Your task to perform on an android device: open wifi settings Image 0: 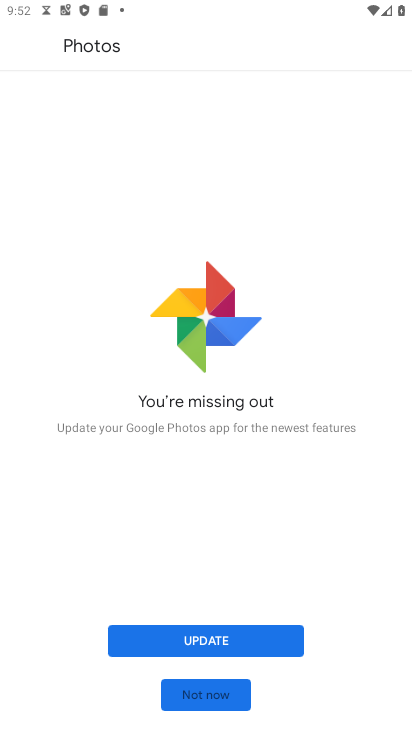
Step 0: press home button
Your task to perform on an android device: open wifi settings Image 1: 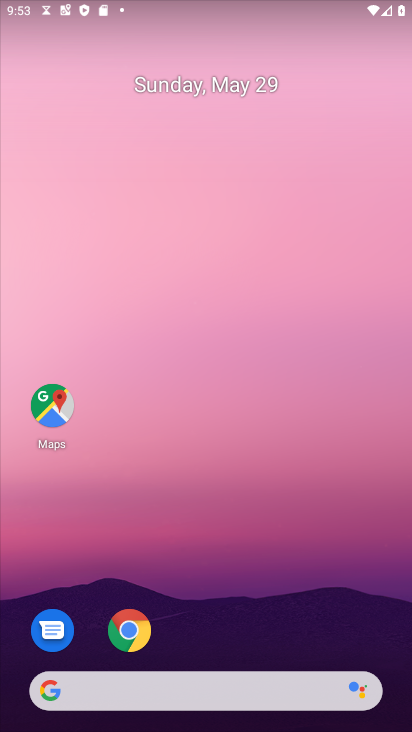
Step 1: drag from (282, 634) to (238, 46)
Your task to perform on an android device: open wifi settings Image 2: 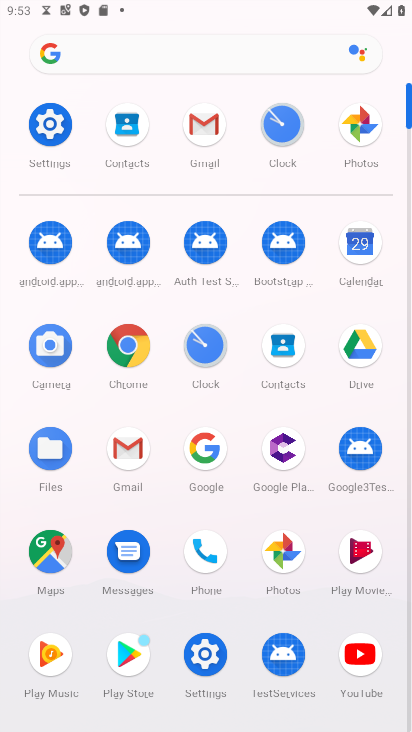
Step 2: click (44, 125)
Your task to perform on an android device: open wifi settings Image 3: 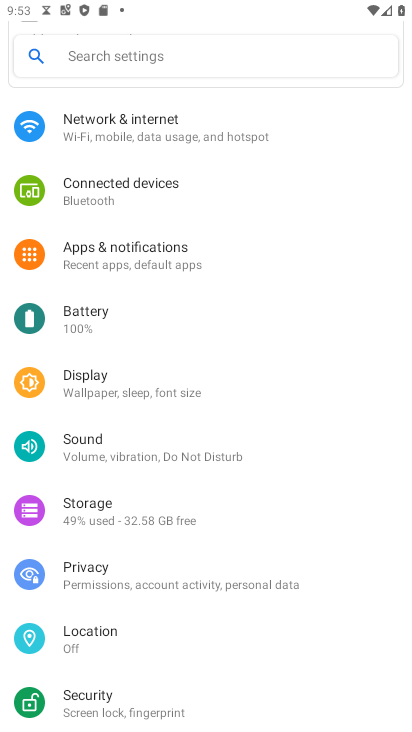
Step 3: click (104, 122)
Your task to perform on an android device: open wifi settings Image 4: 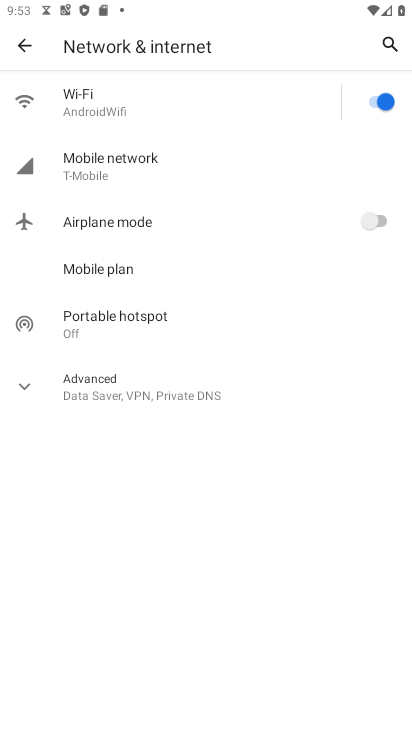
Step 4: click (107, 99)
Your task to perform on an android device: open wifi settings Image 5: 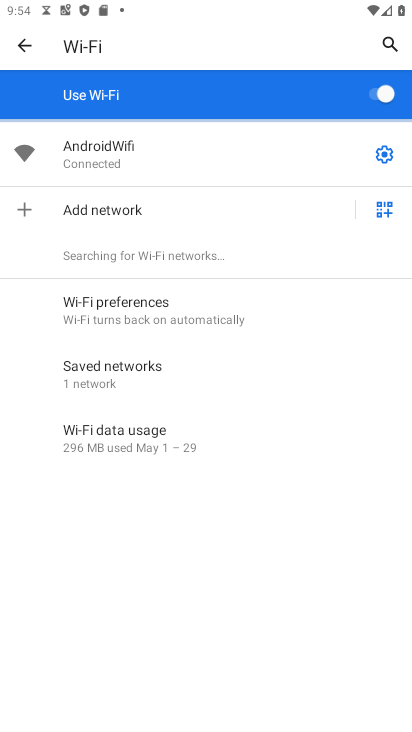
Step 5: task complete